Your task to perform on an android device: make emails show in primary in the gmail app Image 0: 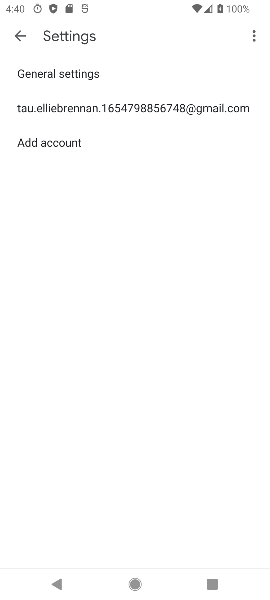
Step 0: click (18, 30)
Your task to perform on an android device: make emails show in primary in the gmail app Image 1: 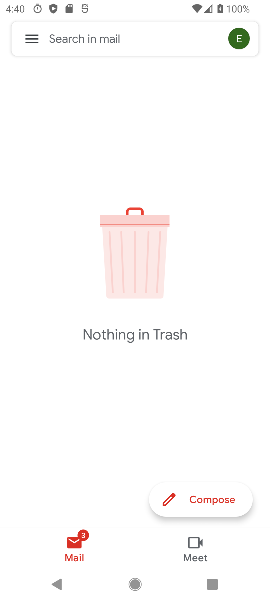
Step 1: press back button
Your task to perform on an android device: make emails show in primary in the gmail app Image 2: 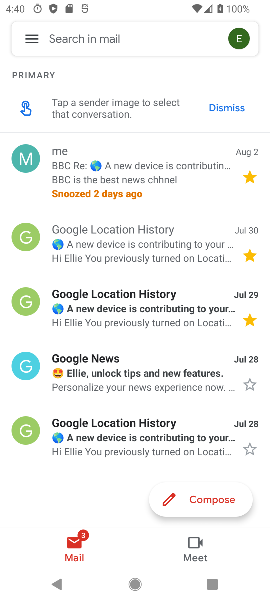
Step 2: click (38, 36)
Your task to perform on an android device: make emails show in primary in the gmail app Image 3: 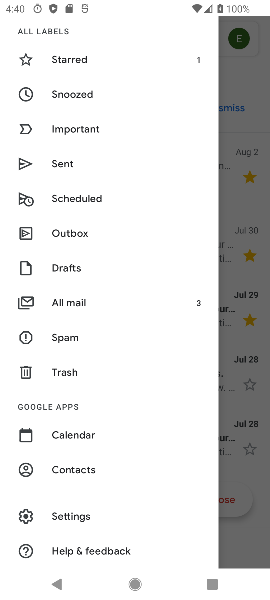
Step 3: click (65, 512)
Your task to perform on an android device: make emails show in primary in the gmail app Image 4: 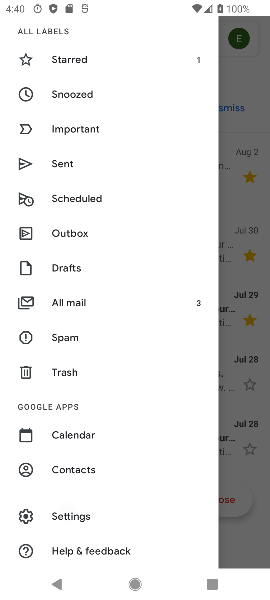
Step 4: click (65, 512)
Your task to perform on an android device: make emails show in primary in the gmail app Image 5: 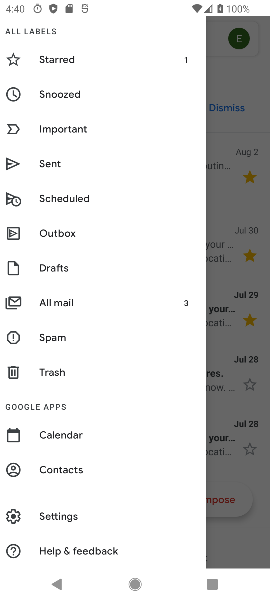
Step 5: click (65, 514)
Your task to perform on an android device: make emails show in primary in the gmail app Image 6: 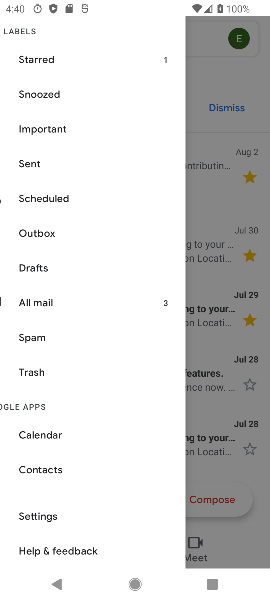
Step 6: click (65, 514)
Your task to perform on an android device: make emails show in primary in the gmail app Image 7: 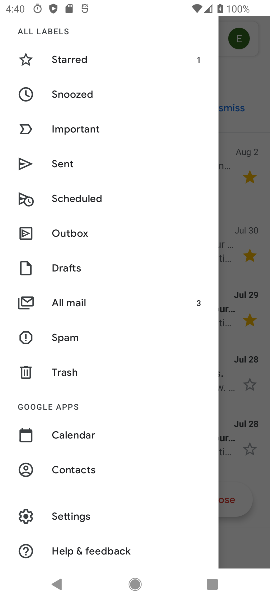
Step 7: click (60, 498)
Your task to perform on an android device: make emails show in primary in the gmail app Image 8: 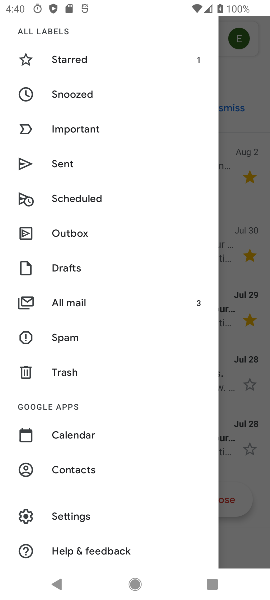
Step 8: click (54, 505)
Your task to perform on an android device: make emails show in primary in the gmail app Image 9: 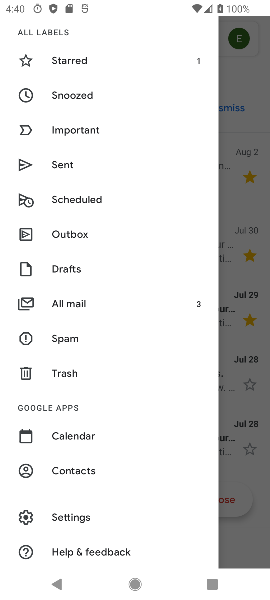
Step 9: click (60, 516)
Your task to perform on an android device: make emails show in primary in the gmail app Image 10: 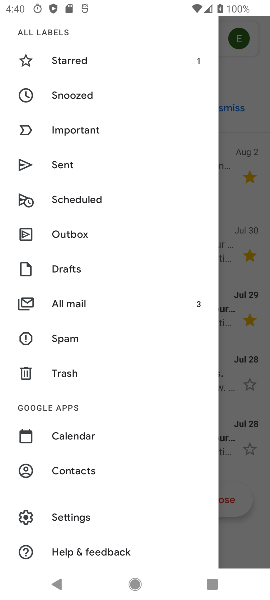
Step 10: click (60, 516)
Your task to perform on an android device: make emails show in primary in the gmail app Image 11: 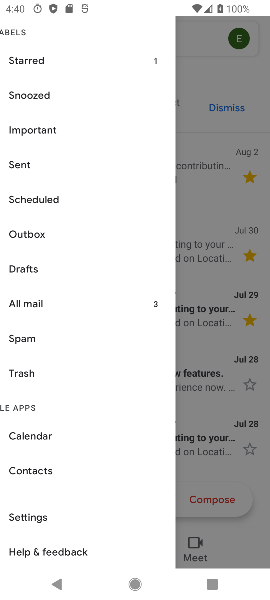
Step 11: click (60, 516)
Your task to perform on an android device: make emails show in primary in the gmail app Image 12: 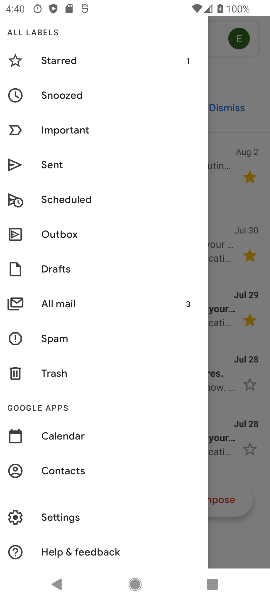
Step 12: click (60, 516)
Your task to perform on an android device: make emails show in primary in the gmail app Image 13: 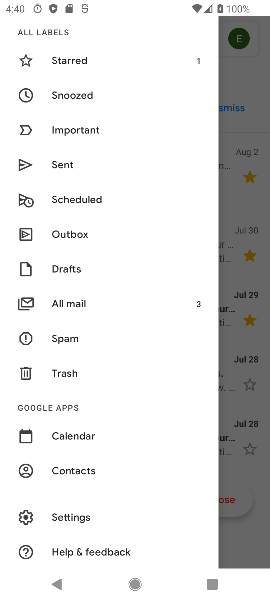
Step 13: click (61, 515)
Your task to perform on an android device: make emails show in primary in the gmail app Image 14: 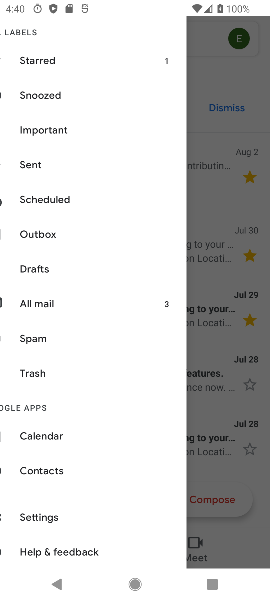
Step 14: click (61, 515)
Your task to perform on an android device: make emails show in primary in the gmail app Image 15: 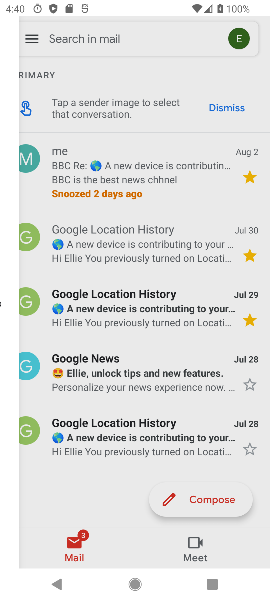
Step 15: click (60, 514)
Your task to perform on an android device: make emails show in primary in the gmail app Image 16: 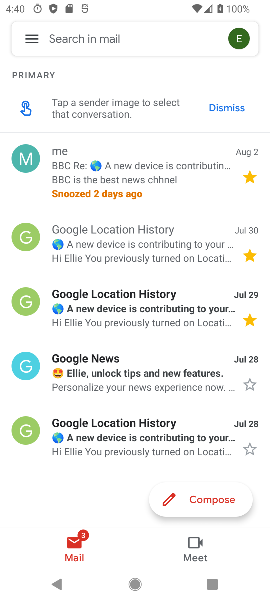
Step 16: click (58, 514)
Your task to perform on an android device: make emails show in primary in the gmail app Image 17: 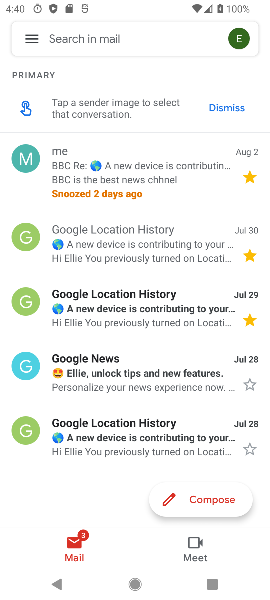
Step 17: click (56, 515)
Your task to perform on an android device: make emails show in primary in the gmail app Image 18: 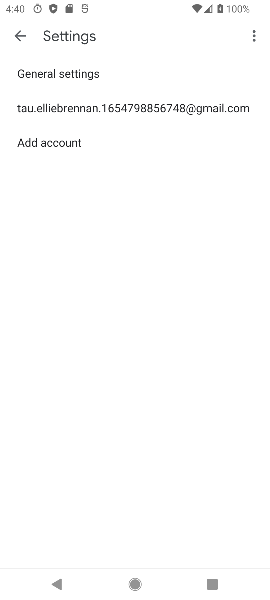
Step 18: click (77, 112)
Your task to perform on an android device: make emails show in primary in the gmail app Image 19: 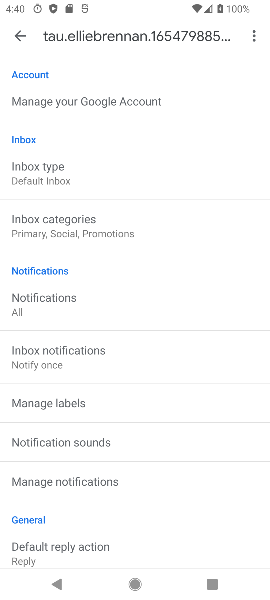
Step 19: task complete